Your task to perform on an android device: Do I have any events tomorrow? Image 0: 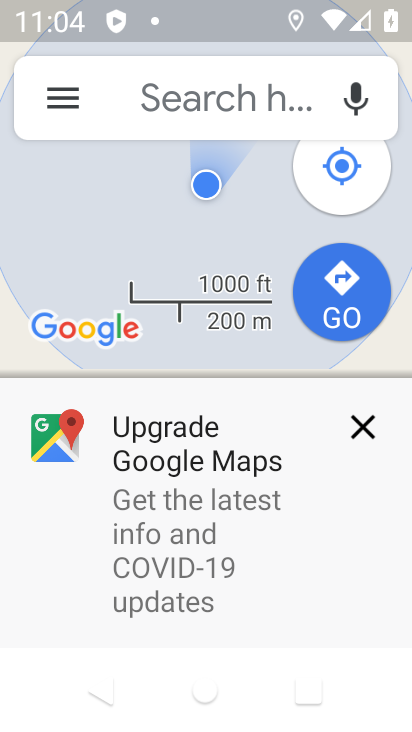
Step 0: press home button
Your task to perform on an android device: Do I have any events tomorrow? Image 1: 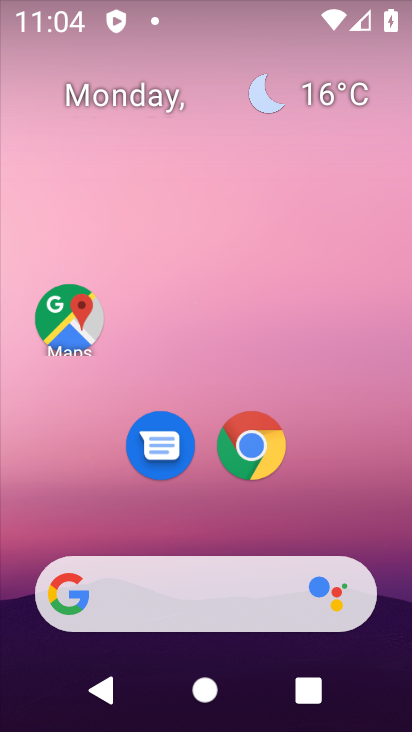
Step 1: drag from (233, 534) to (251, 12)
Your task to perform on an android device: Do I have any events tomorrow? Image 2: 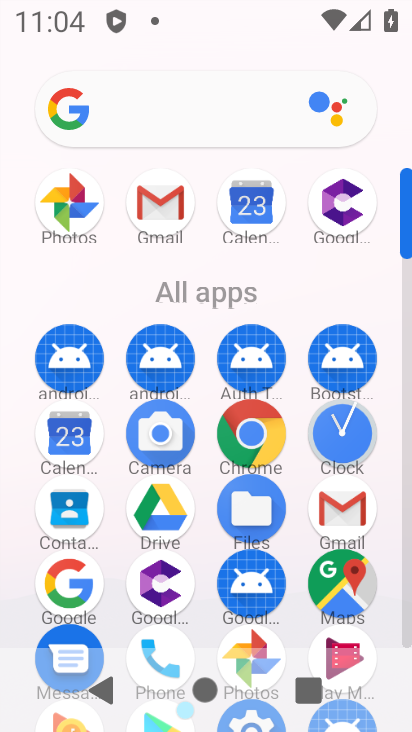
Step 2: click (66, 454)
Your task to perform on an android device: Do I have any events tomorrow? Image 3: 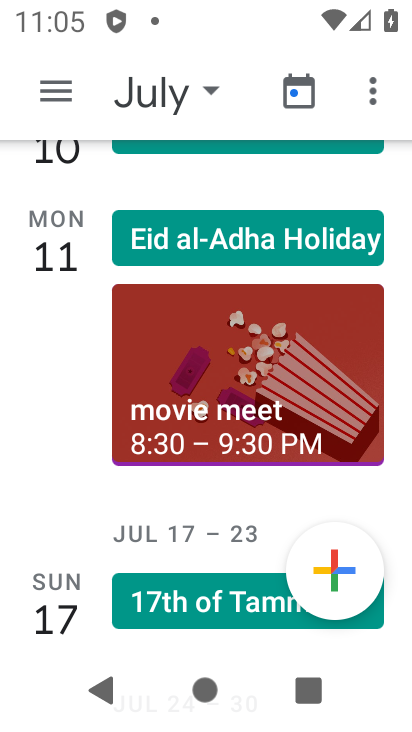
Step 3: click (51, 78)
Your task to perform on an android device: Do I have any events tomorrow? Image 4: 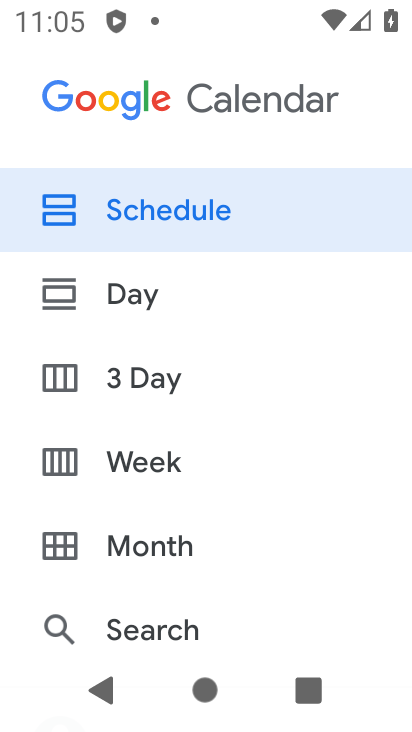
Step 4: drag from (146, 470) to (226, 11)
Your task to perform on an android device: Do I have any events tomorrow? Image 5: 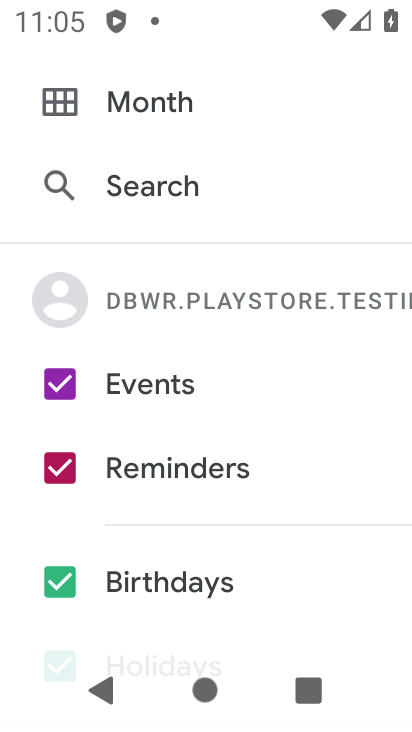
Step 5: drag from (155, 573) to (165, 119)
Your task to perform on an android device: Do I have any events tomorrow? Image 6: 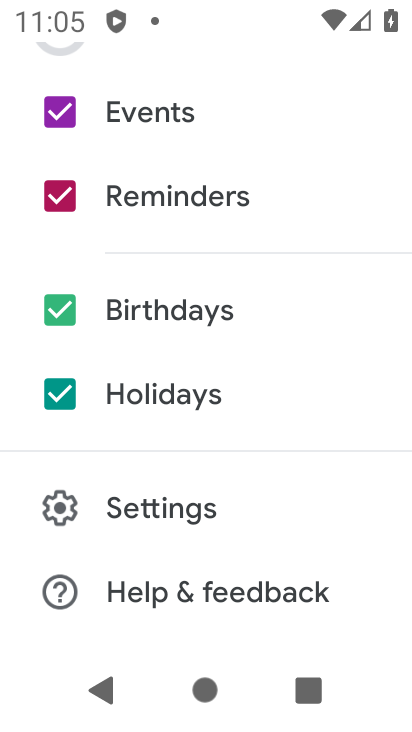
Step 6: click (86, 411)
Your task to perform on an android device: Do I have any events tomorrow? Image 7: 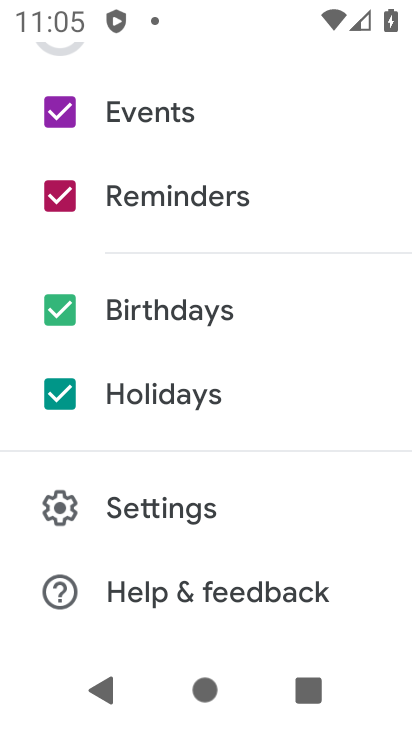
Step 7: click (68, 314)
Your task to perform on an android device: Do I have any events tomorrow? Image 8: 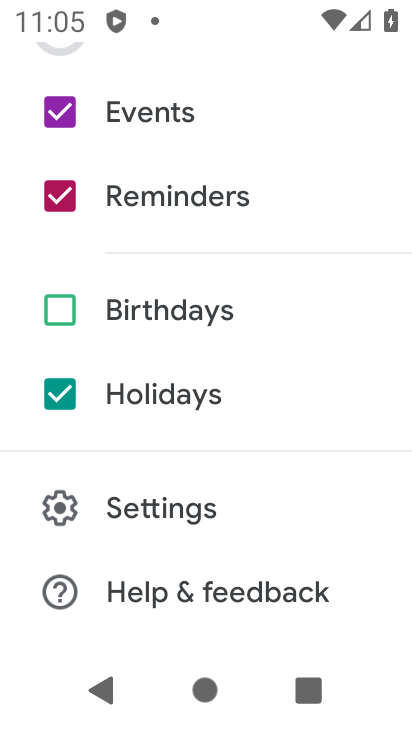
Step 8: click (70, 399)
Your task to perform on an android device: Do I have any events tomorrow? Image 9: 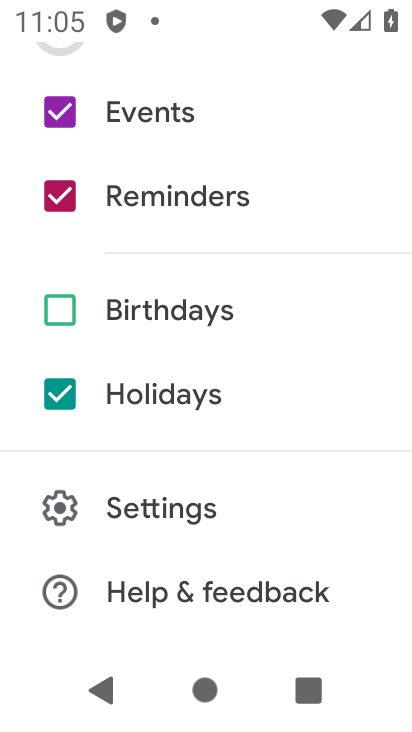
Step 9: click (66, 387)
Your task to perform on an android device: Do I have any events tomorrow? Image 10: 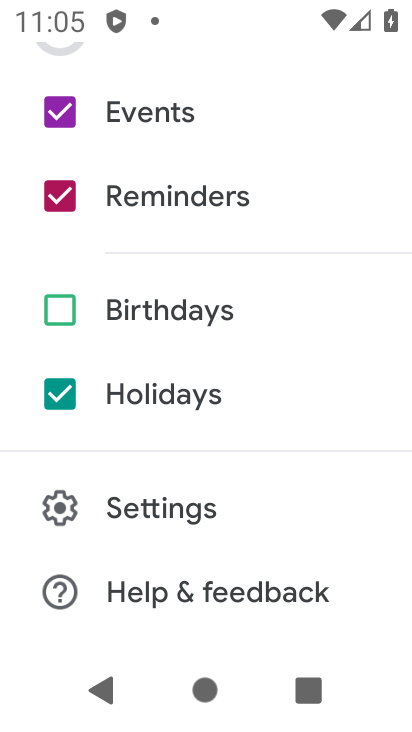
Step 10: click (60, 401)
Your task to perform on an android device: Do I have any events tomorrow? Image 11: 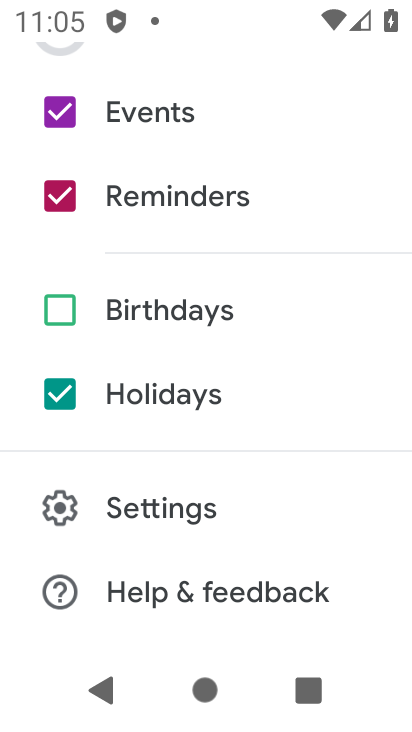
Step 11: click (65, 202)
Your task to perform on an android device: Do I have any events tomorrow? Image 12: 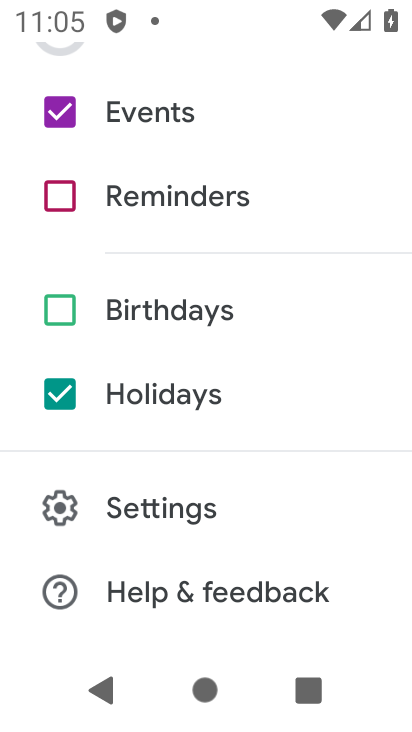
Step 12: click (57, 392)
Your task to perform on an android device: Do I have any events tomorrow? Image 13: 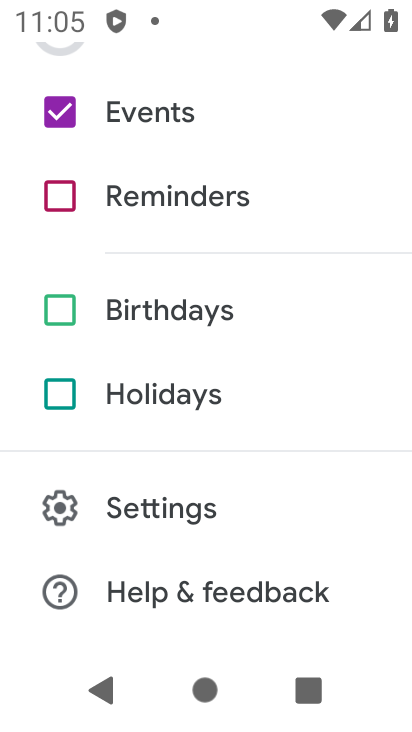
Step 13: drag from (248, 163) to (251, 596)
Your task to perform on an android device: Do I have any events tomorrow? Image 14: 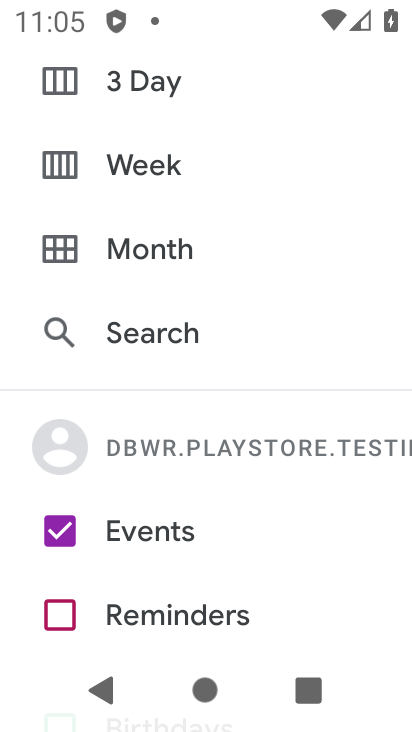
Step 14: drag from (176, 165) to (187, 354)
Your task to perform on an android device: Do I have any events tomorrow? Image 15: 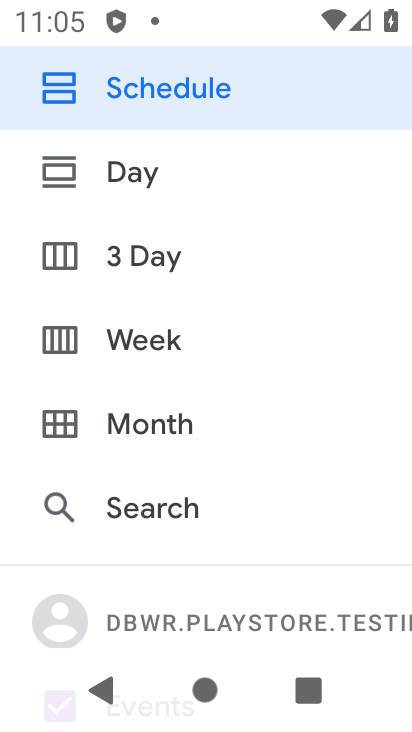
Step 15: click (157, 264)
Your task to perform on an android device: Do I have any events tomorrow? Image 16: 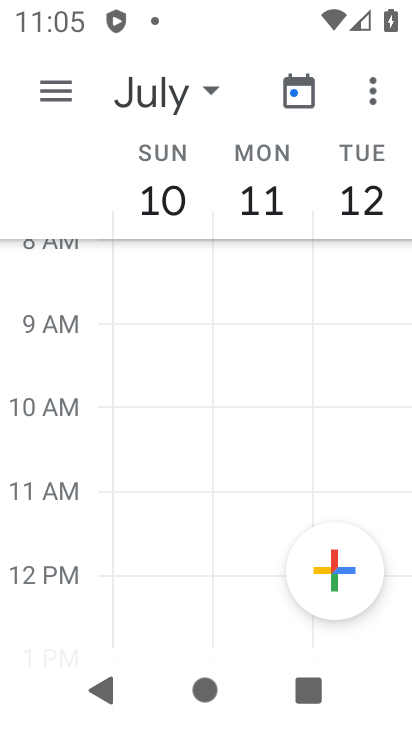
Step 16: task complete